Your task to perform on an android device: Open calendar and show me the third week of next month Image 0: 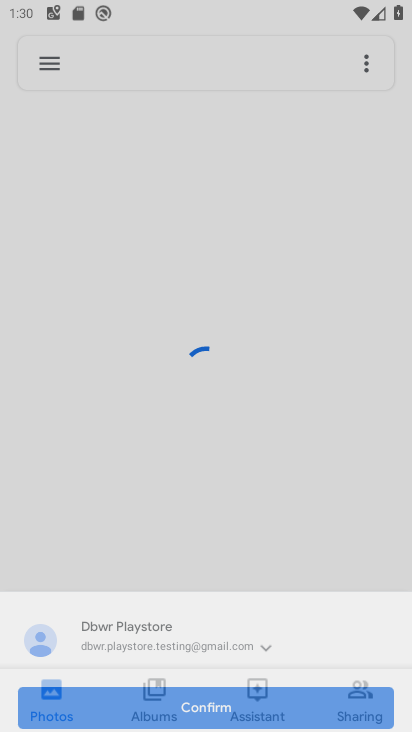
Step 0: press home button
Your task to perform on an android device: Open calendar and show me the third week of next month Image 1: 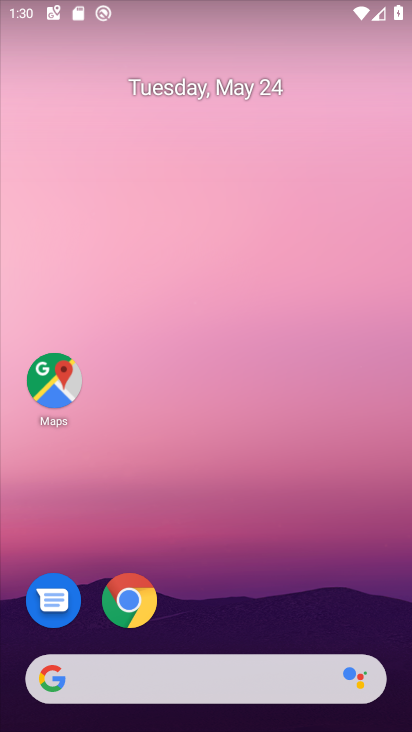
Step 1: drag from (197, 592) to (205, 417)
Your task to perform on an android device: Open calendar and show me the third week of next month Image 2: 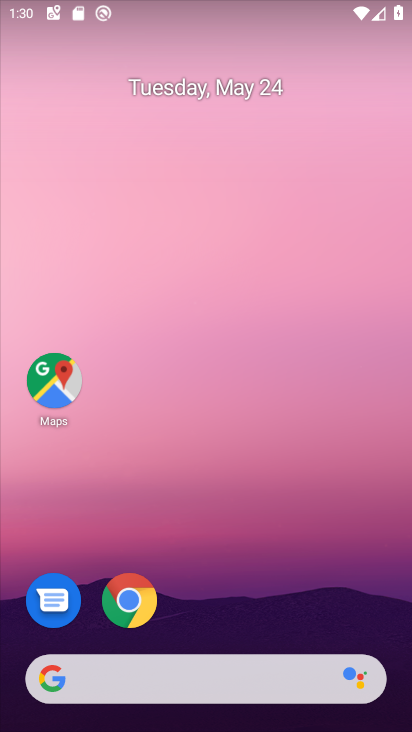
Step 2: drag from (316, 549) to (356, 118)
Your task to perform on an android device: Open calendar and show me the third week of next month Image 3: 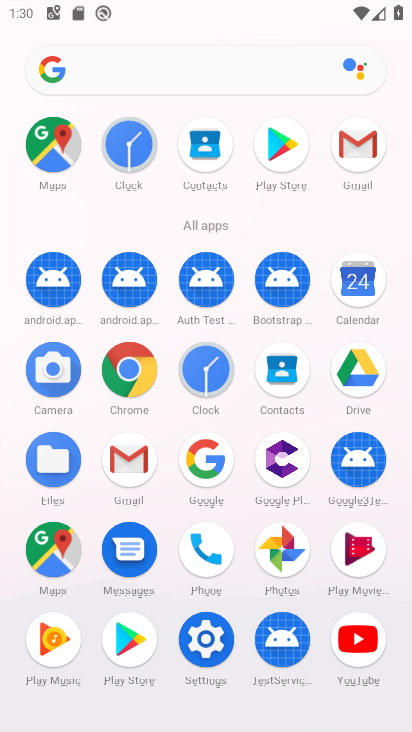
Step 3: click (373, 299)
Your task to perform on an android device: Open calendar and show me the third week of next month Image 4: 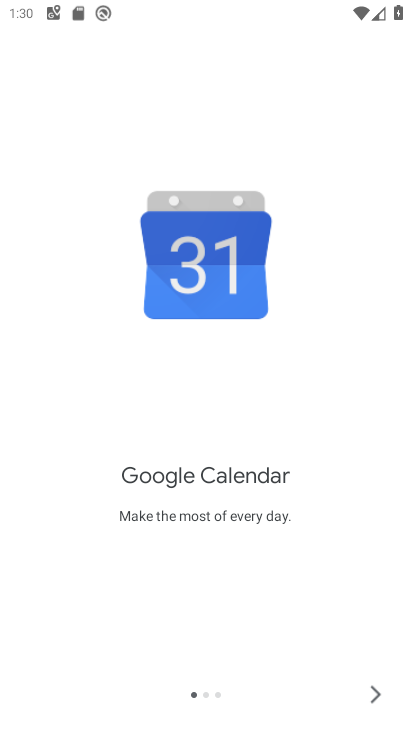
Step 4: click (372, 687)
Your task to perform on an android device: Open calendar and show me the third week of next month Image 5: 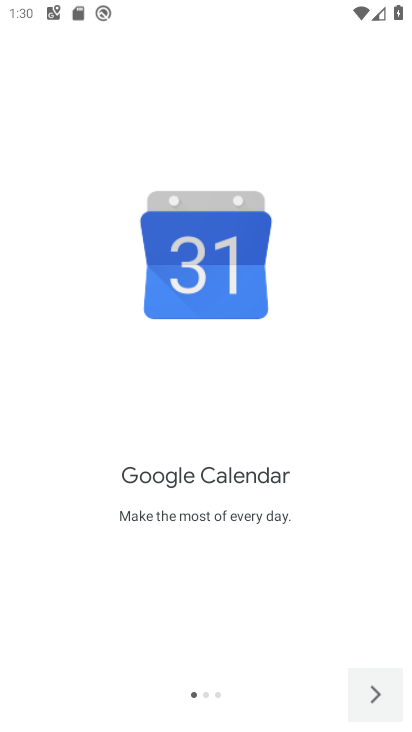
Step 5: click (372, 687)
Your task to perform on an android device: Open calendar and show me the third week of next month Image 6: 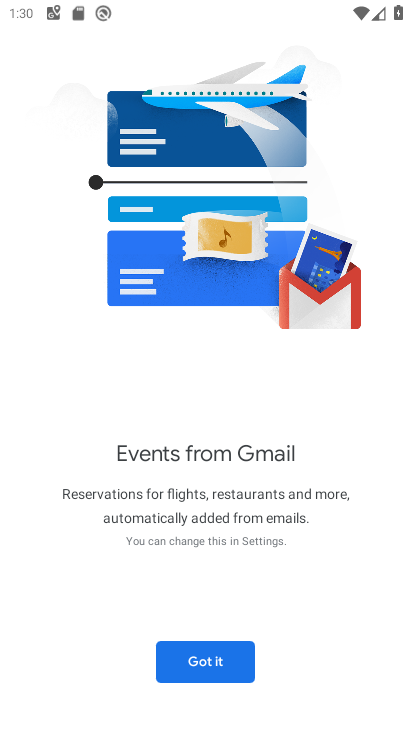
Step 6: click (167, 659)
Your task to perform on an android device: Open calendar and show me the third week of next month Image 7: 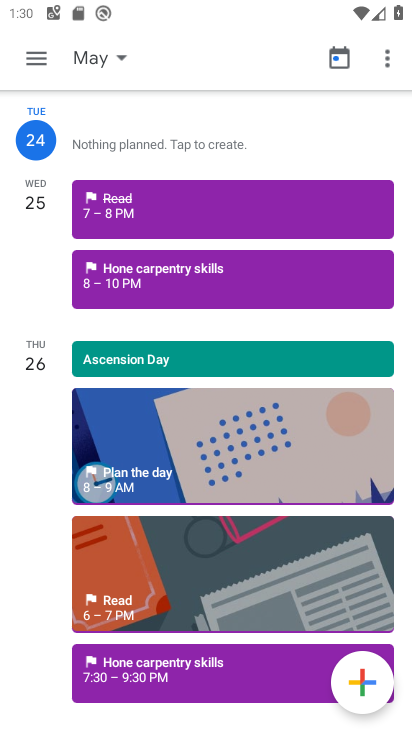
Step 7: click (80, 48)
Your task to perform on an android device: Open calendar and show me the third week of next month Image 8: 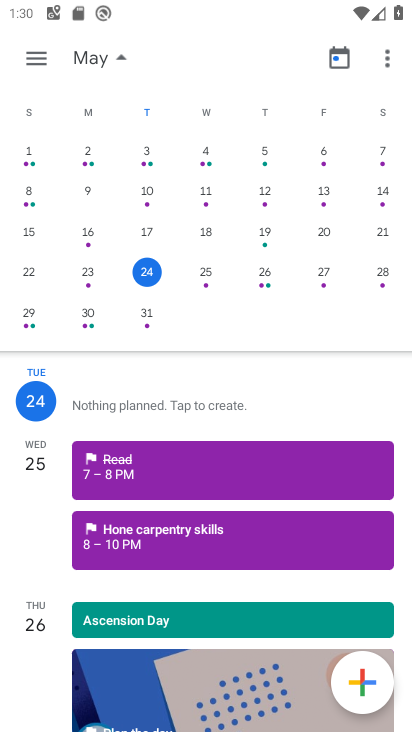
Step 8: task complete